Your task to perform on an android device: see creations saved in the google photos Image 0: 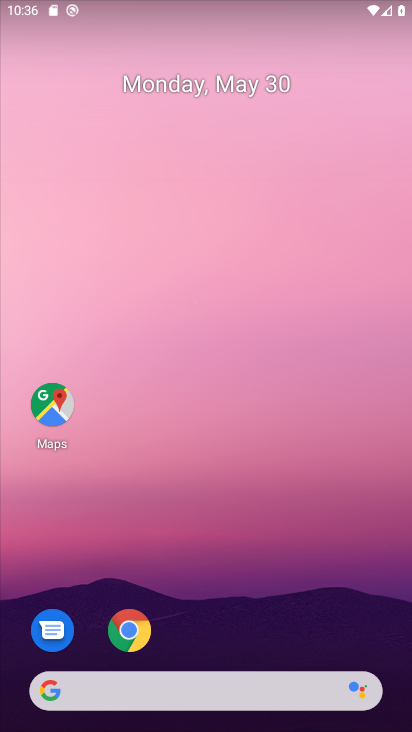
Step 0: drag from (299, 621) to (311, 254)
Your task to perform on an android device: see creations saved in the google photos Image 1: 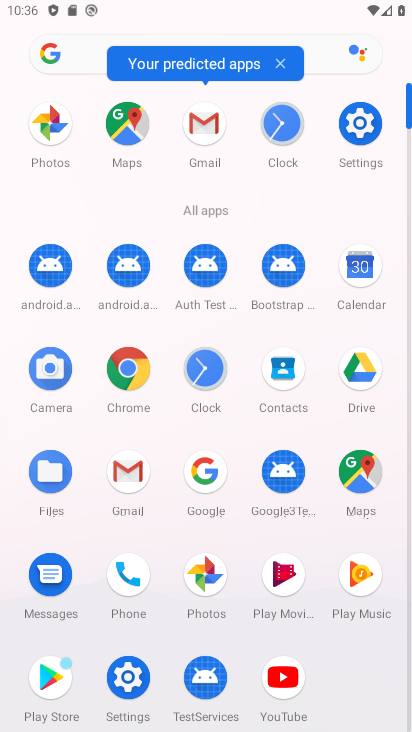
Step 1: click (201, 594)
Your task to perform on an android device: see creations saved in the google photos Image 2: 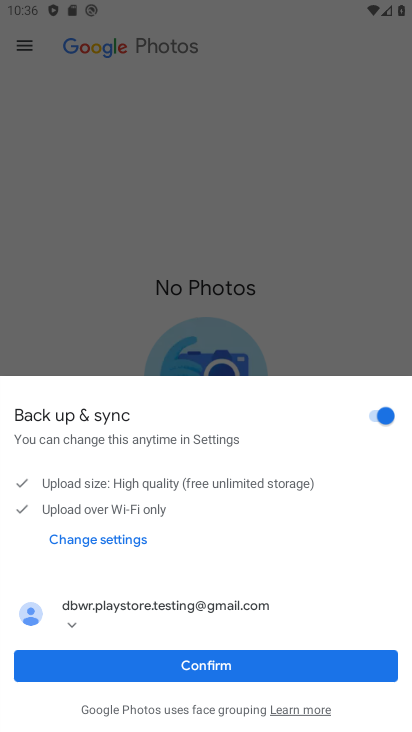
Step 2: click (245, 667)
Your task to perform on an android device: see creations saved in the google photos Image 3: 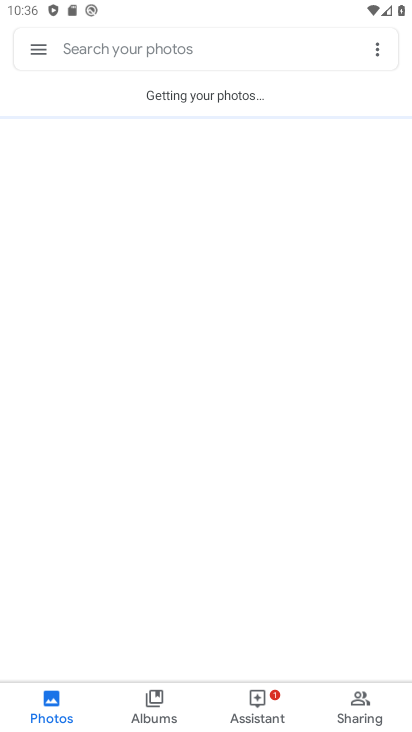
Step 3: click (133, 49)
Your task to perform on an android device: see creations saved in the google photos Image 4: 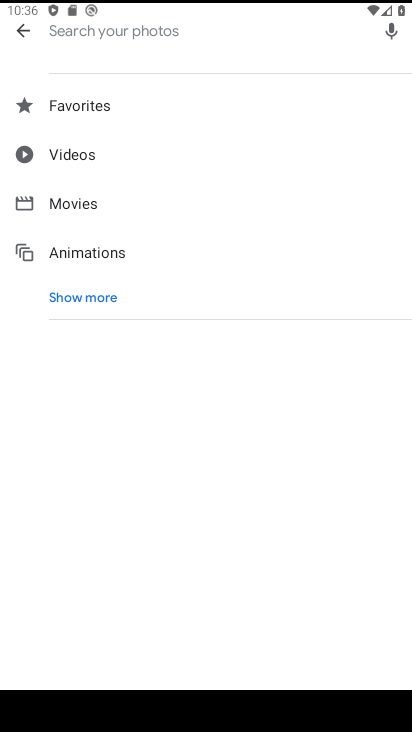
Step 4: type "creations "
Your task to perform on an android device: see creations saved in the google photos Image 5: 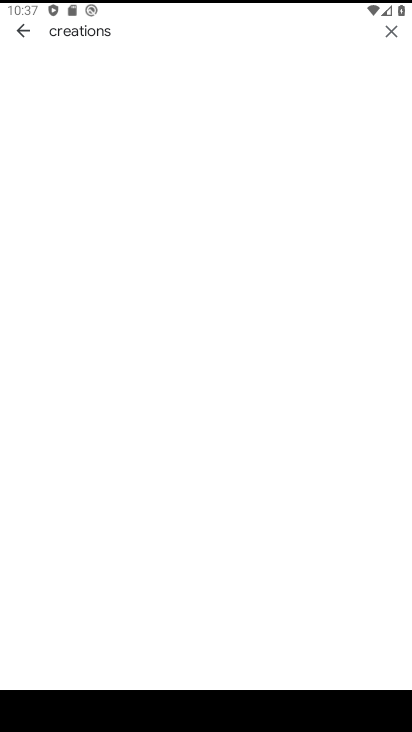
Step 5: task complete